Your task to perform on an android device: Is it going to rain today? Image 0: 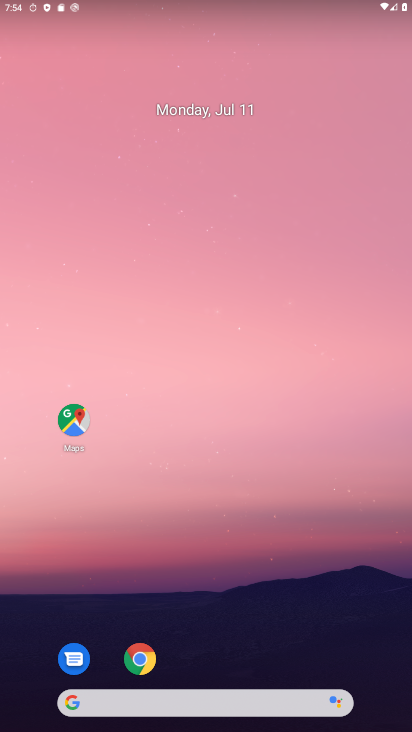
Step 0: drag from (325, 599) to (388, 0)
Your task to perform on an android device: Is it going to rain today? Image 1: 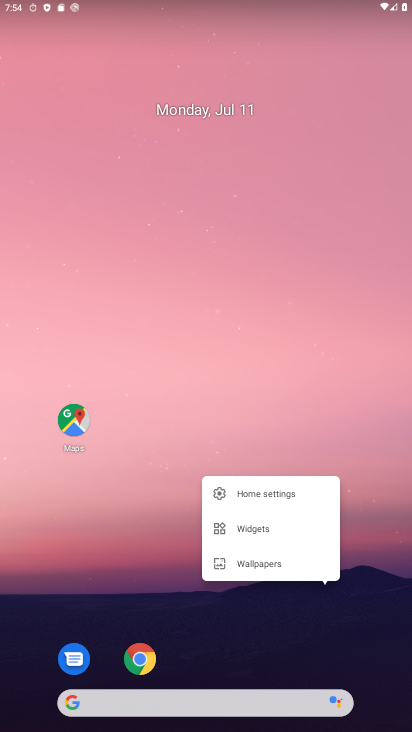
Step 1: click (330, 633)
Your task to perform on an android device: Is it going to rain today? Image 2: 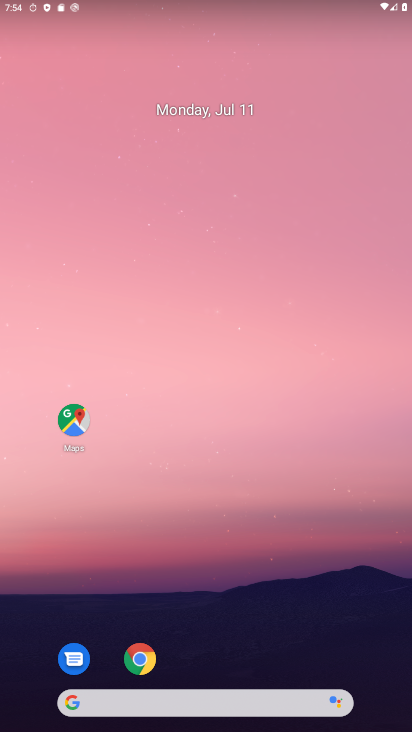
Step 2: drag from (310, 663) to (302, 23)
Your task to perform on an android device: Is it going to rain today? Image 3: 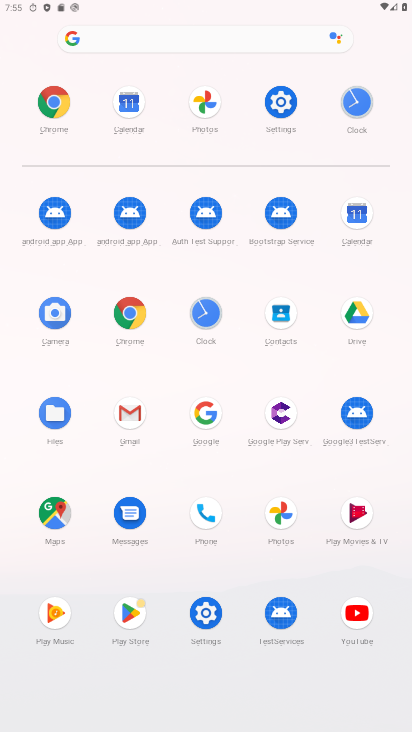
Step 3: click (347, 229)
Your task to perform on an android device: Is it going to rain today? Image 4: 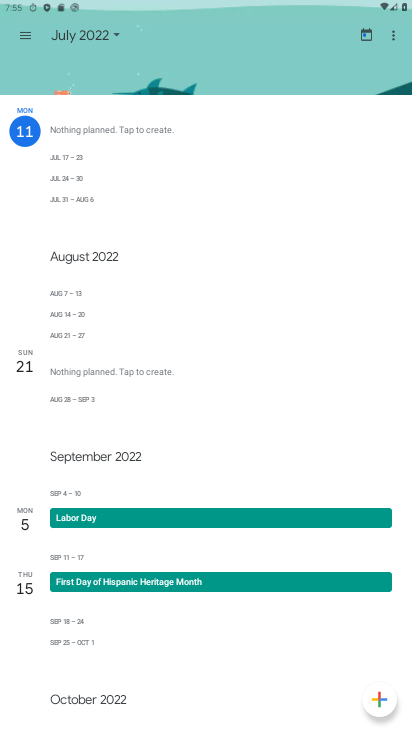
Step 4: task complete